Your task to perform on an android device: Open CNN.com Image 0: 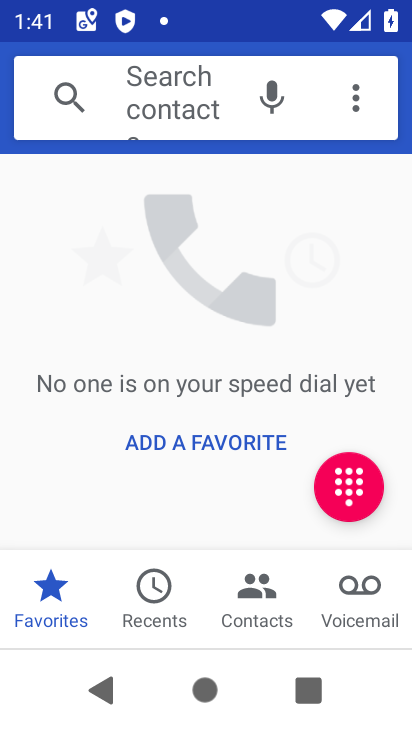
Step 0: press home button
Your task to perform on an android device: Open CNN.com Image 1: 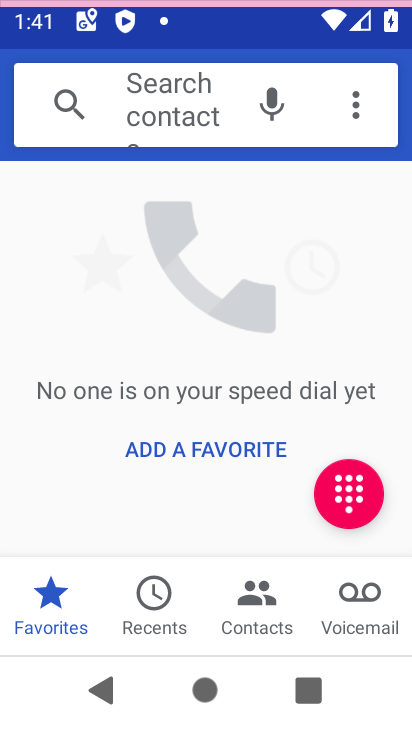
Step 1: press home button
Your task to perform on an android device: Open CNN.com Image 2: 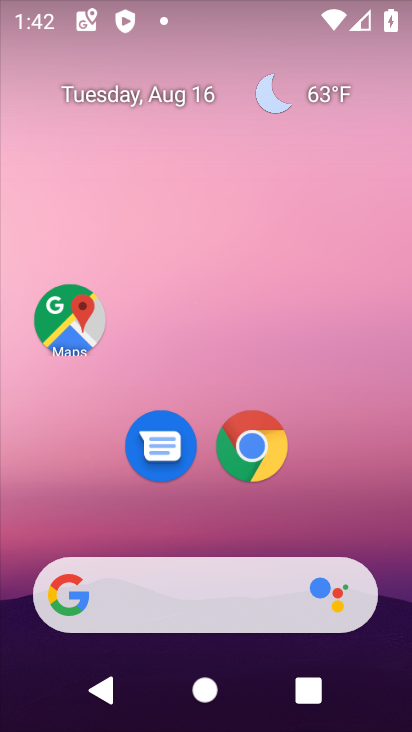
Step 2: click (248, 438)
Your task to perform on an android device: Open CNN.com Image 3: 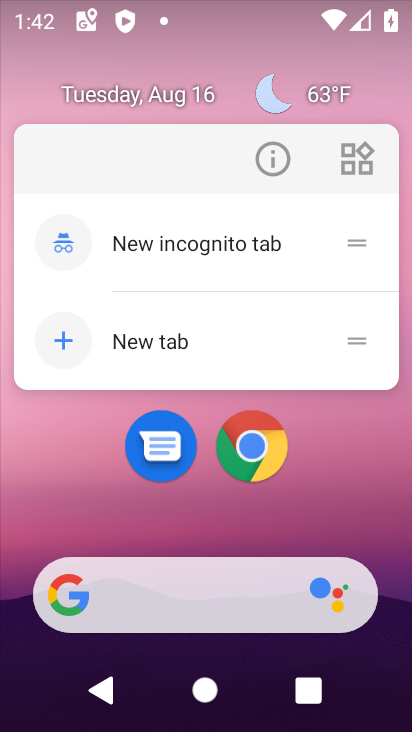
Step 3: click (250, 437)
Your task to perform on an android device: Open CNN.com Image 4: 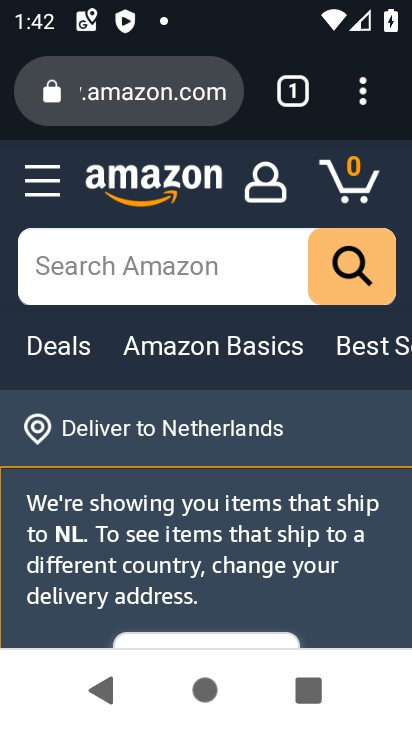
Step 4: click (292, 91)
Your task to perform on an android device: Open CNN.com Image 5: 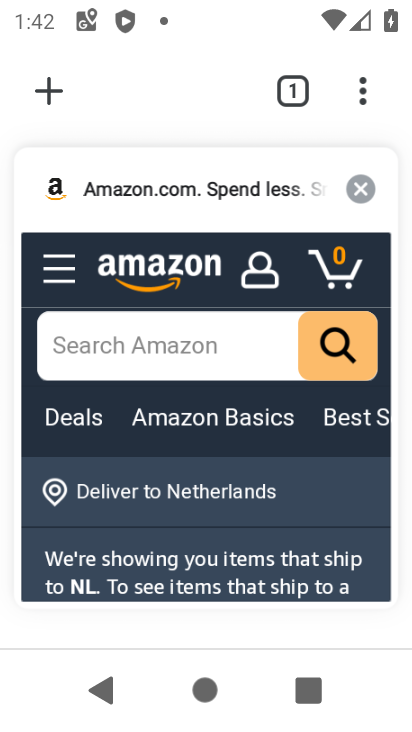
Step 5: click (55, 95)
Your task to perform on an android device: Open CNN.com Image 6: 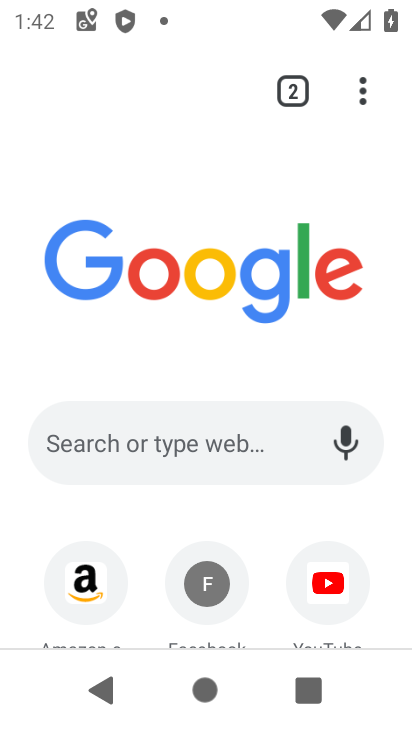
Step 6: drag from (264, 523) to (298, 41)
Your task to perform on an android device: Open CNN.com Image 7: 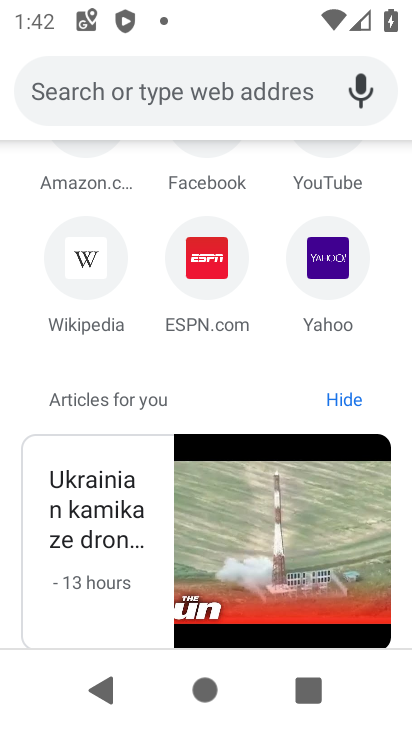
Step 7: click (161, 92)
Your task to perform on an android device: Open CNN.com Image 8: 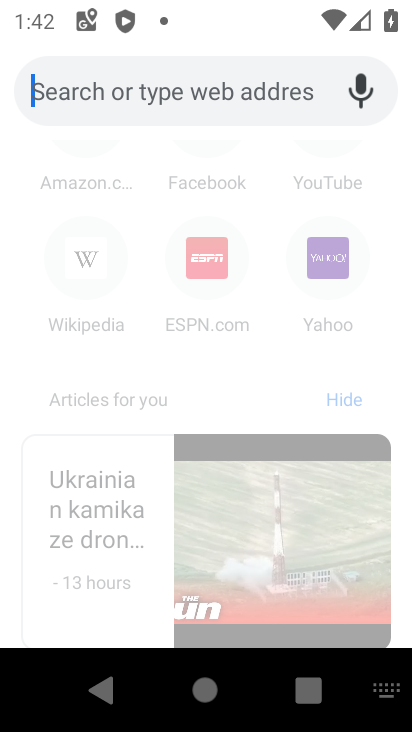
Step 8: type "cnn.com"
Your task to perform on an android device: Open CNN.com Image 9: 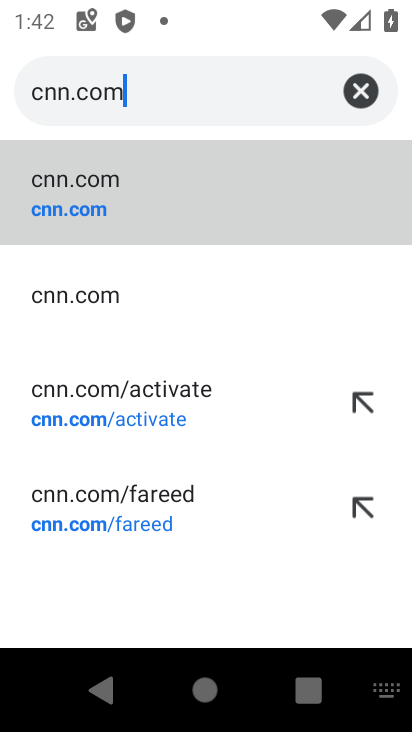
Step 9: click (112, 194)
Your task to perform on an android device: Open CNN.com Image 10: 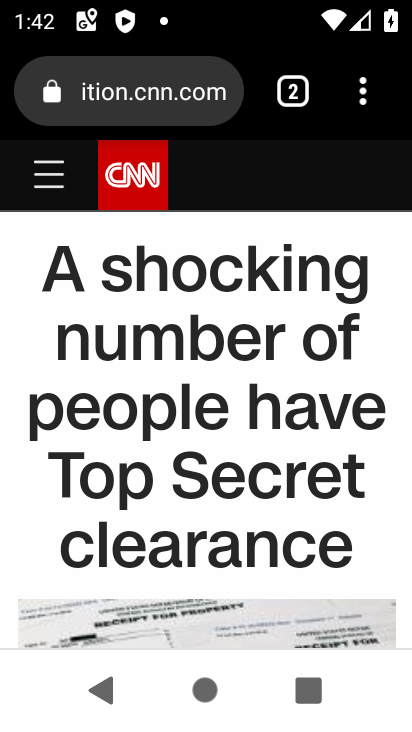
Step 10: drag from (198, 576) to (239, 36)
Your task to perform on an android device: Open CNN.com Image 11: 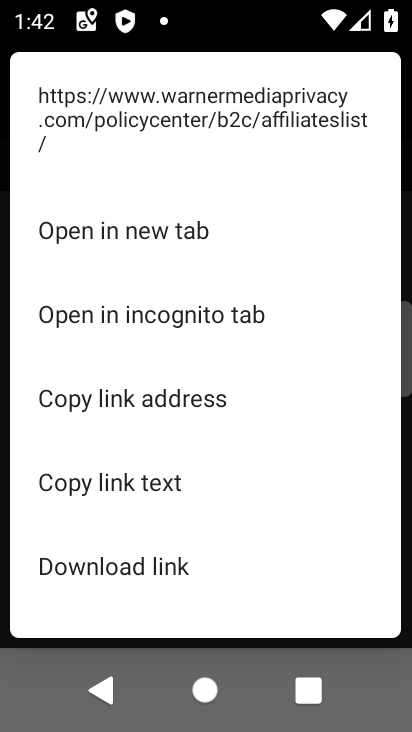
Step 11: click (341, 728)
Your task to perform on an android device: Open CNN.com Image 12: 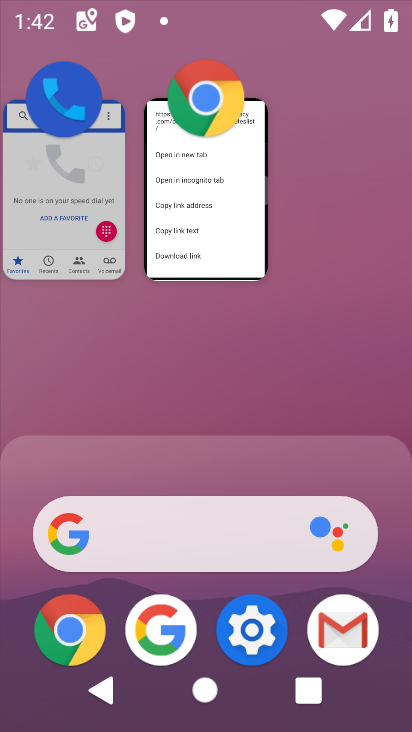
Step 12: press back button
Your task to perform on an android device: Open CNN.com Image 13: 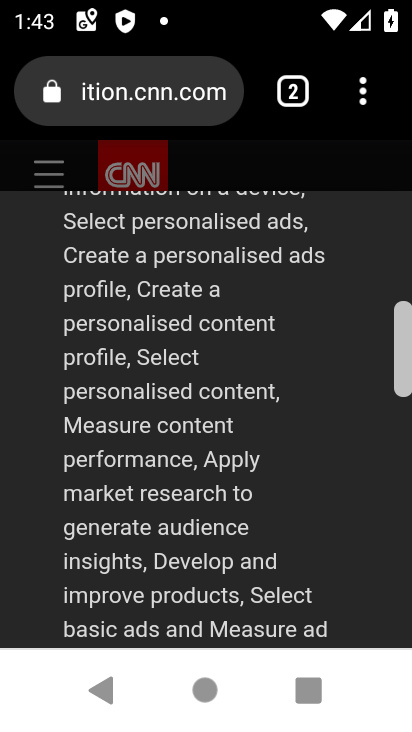
Step 13: drag from (240, 592) to (268, 140)
Your task to perform on an android device: Open CNN.com Image 14: 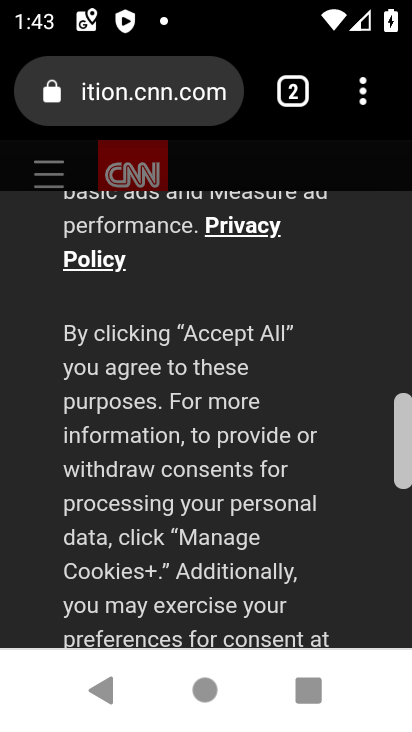
Step 14: drag from (230, 575) to (260, 143)
Your task to perform on an android device: Open CNN.com Image 15: 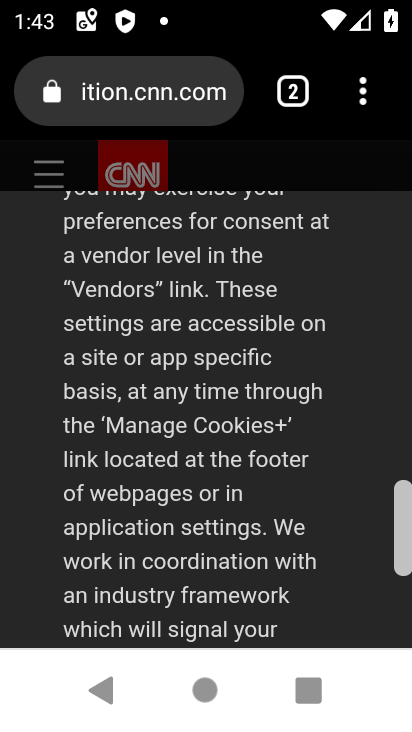
Step 15: drag from (233, 596) to (272, 181)
Your task to perform on an android device: Open CNN.com Image 16: 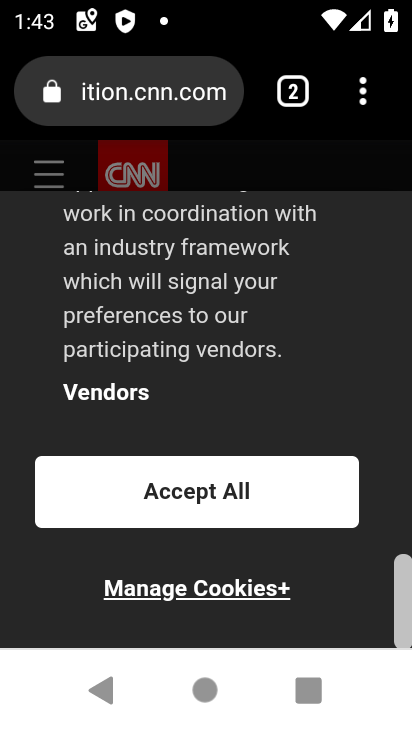
Step 16: click (210, 494)
Your task to perform on an android device: Open CNN.com Image 17: 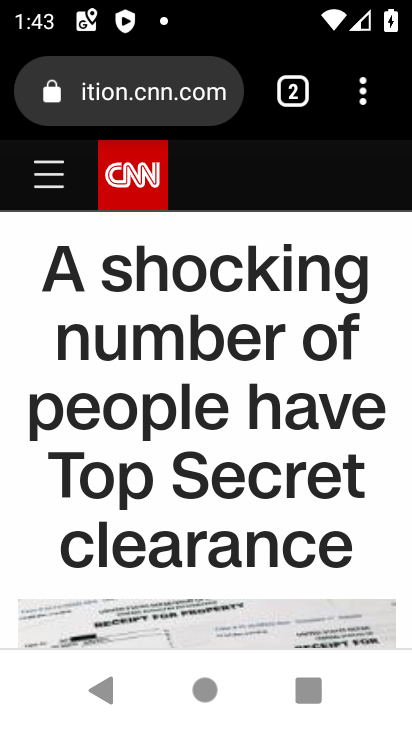
Step 17: task complete